Your task to perform on an android device: Open Chrome and go to settings Image 0: 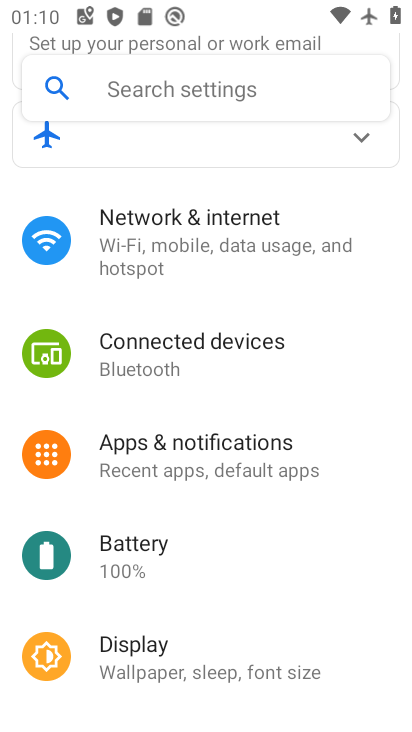
Step 0: press home button
Your task to perform on an android device: Open Chrome and go to settings Image 1: 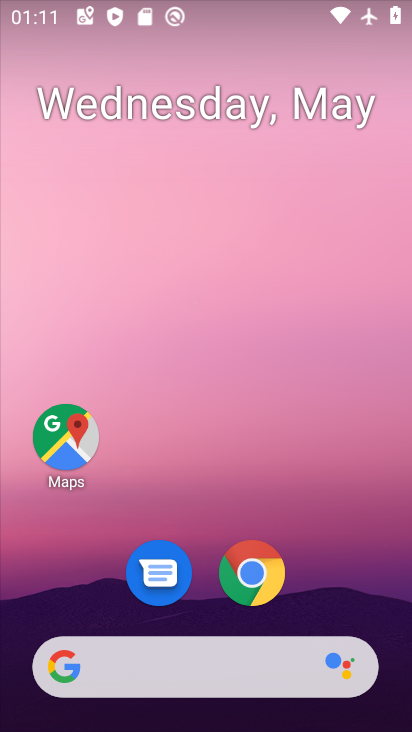
Step 1: drag from (286, 483) to (303, 293)
Your task to perform on an android device: Open Chrome and go to settings Image 2: 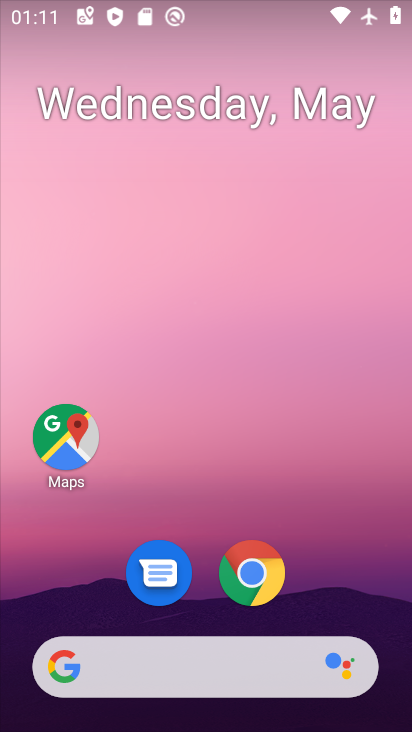
Step 2: click (265, 565)
Your task to perform on an android device: Open Chrome and go to settings Image 3: 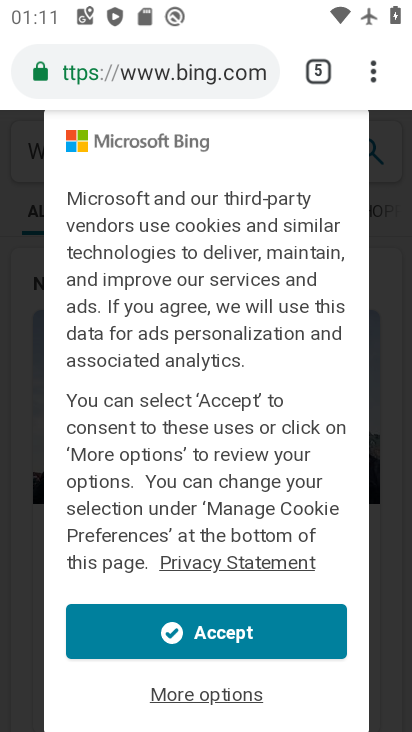
Step 3: click (368, 70)
Your task to perform on an android device: Open Chrome and go to settings Image 4: 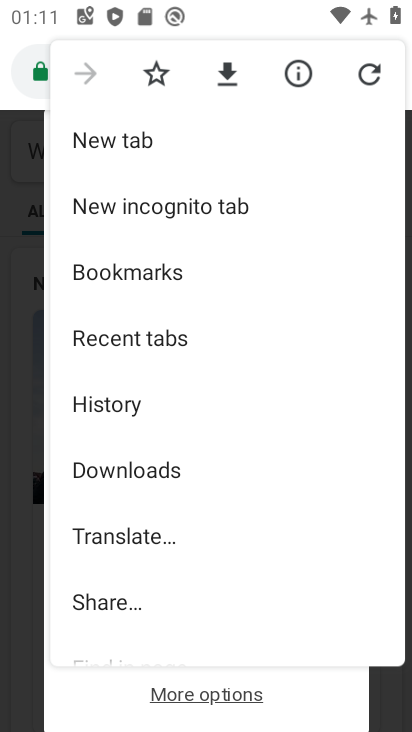
Step 4: drag from (187, 549) to (189, 222)
Your task to perform on an android device: Open Chrome and go to settings Image 5: 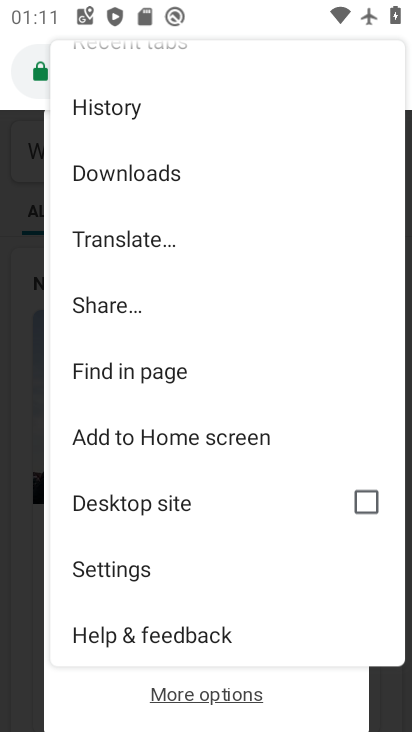
Step 5: click (159, 568)
Your task to perform on an android device: Open Chrome and go to settings Image 6: 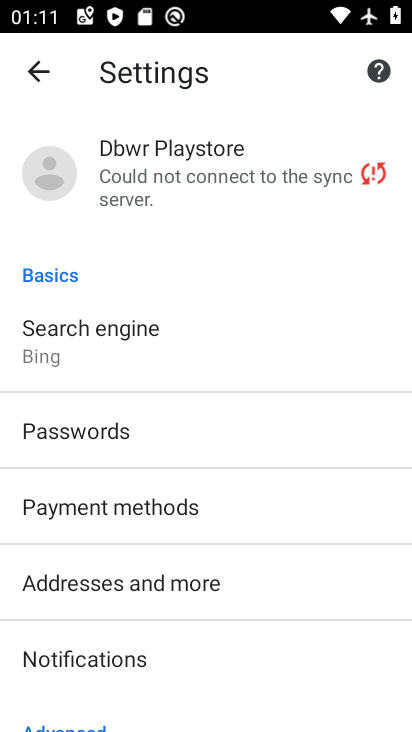
Step 6: task complete